Your task to perform on an android device: Show me the alarms in the clock app Image 0: 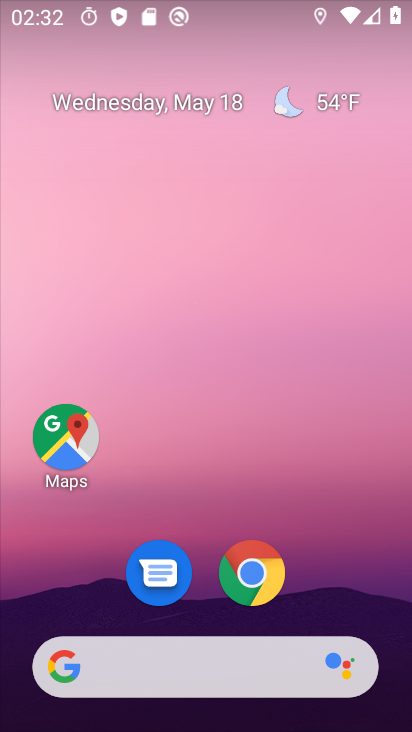
Step 0: drag from (194, 624) to (221, 206)
Your task to perform on an android device: Show me the alarms in the clock app Image 1: 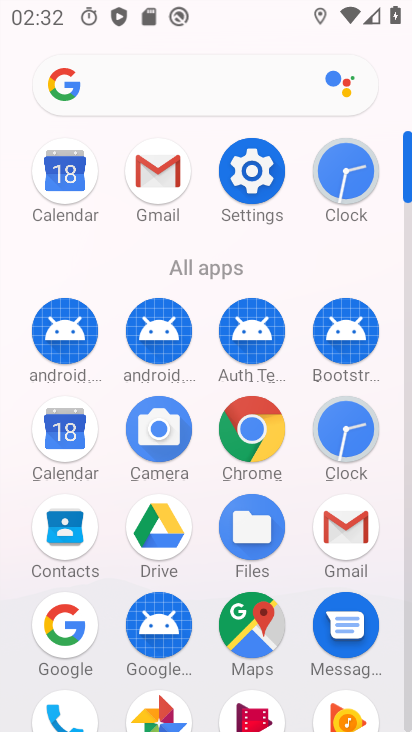
Step 1: click (327, 178)
Your task to perform on an android device: Show me the alarms in the clock app Image 2: 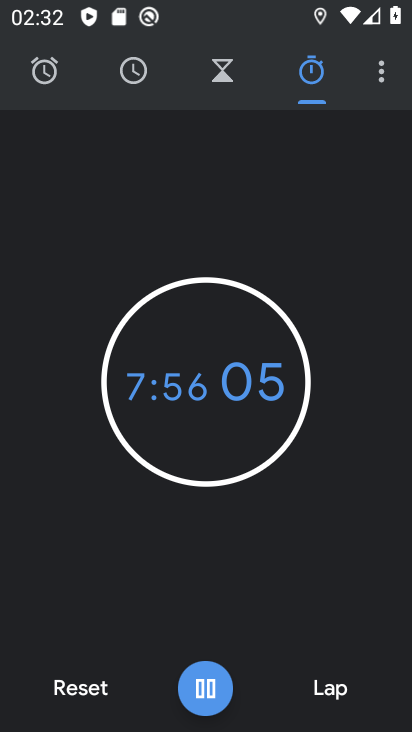
Step 2: click (57, 73)
Your task to perform on an android device: Show me the alarms in the clock app Image 3: 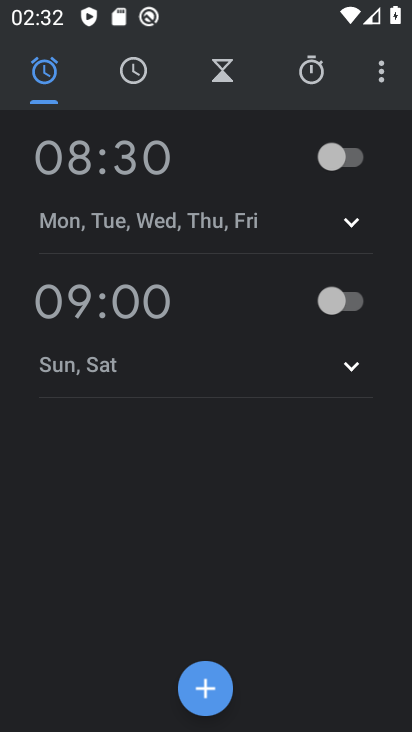
Step 3: task complete